Your task to perform on an android device: check android version Image 0: 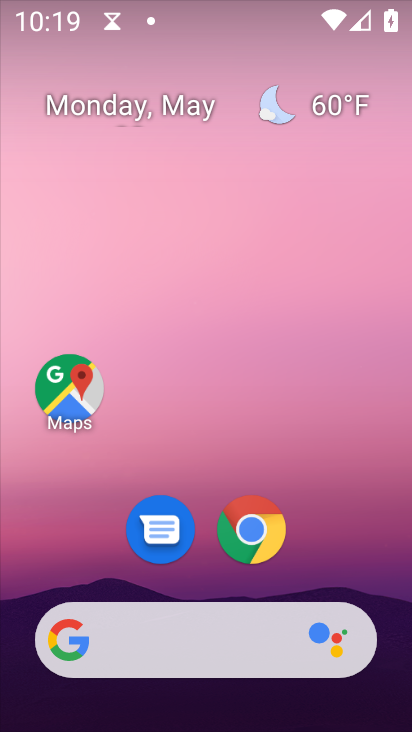
Step 0: drag from (332, 555) to (266, 216)
Your task to perform on an android device: check android version Image 1: 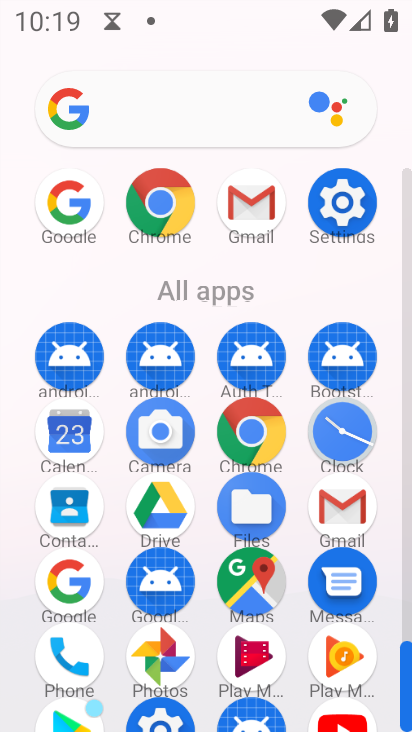
Step 1: click (340, 204)
Your task to perform on an android device: check android version Image 2: 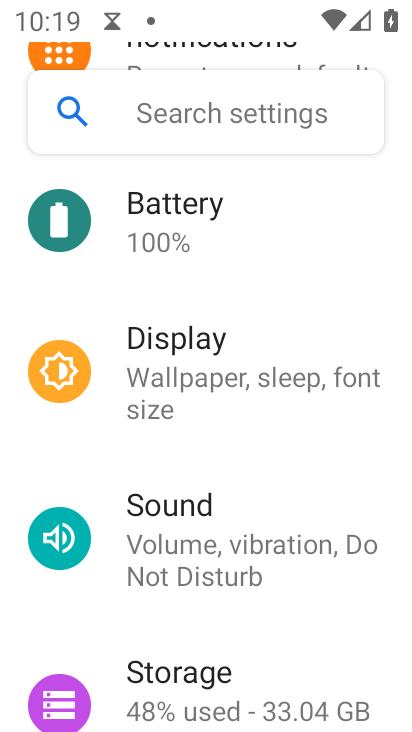
Step 2: drag from (237, 609) to (214, 90)
Your task to perform on an android device: check android version Image 3: 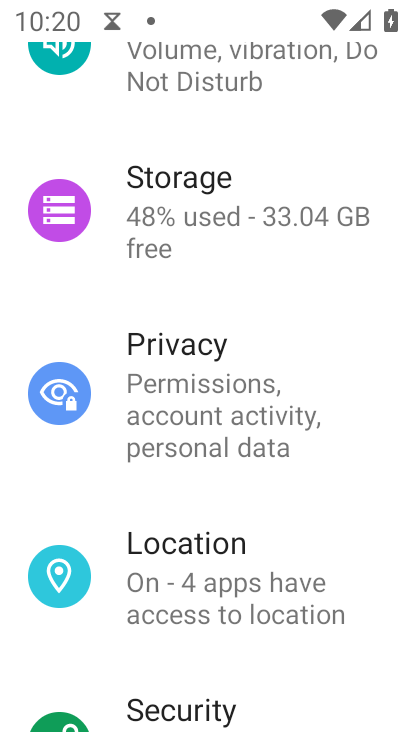
Step 3: drag from (286, 667) to (253, 139)
Your task to perform on an android device: check android version Image 4: 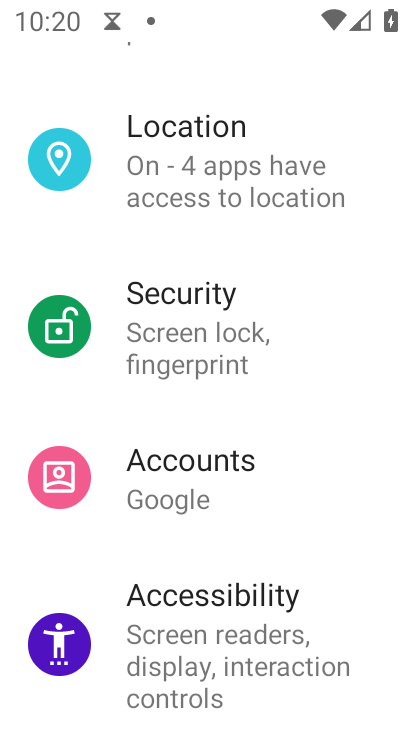
Step 4: drag from (240, 651) to (259, 83)
Your task to perform on an android device: check android version Image 5: 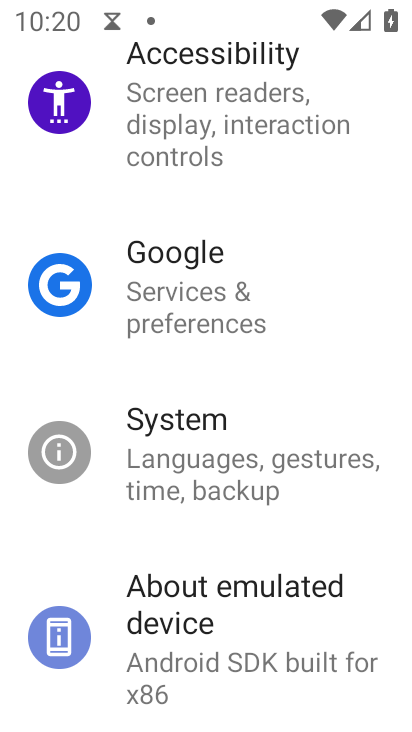
Step 5: click (207, 660)
Your task to perform on an android device: check android version Image 6: 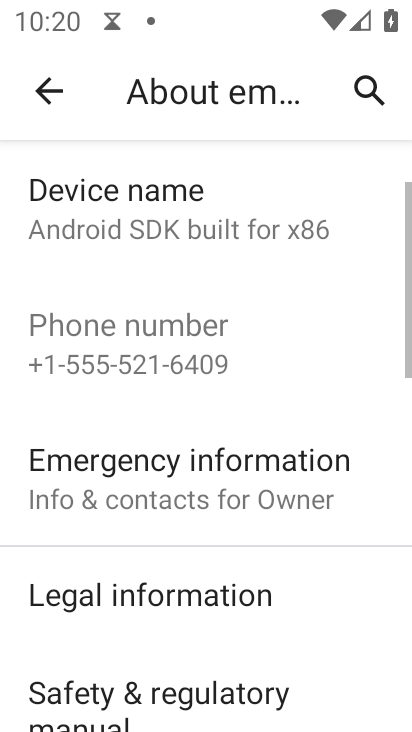
Step 6: drag from (187, 673) to (185, 300)
Your task to perform on an android device: check android version Image 7: 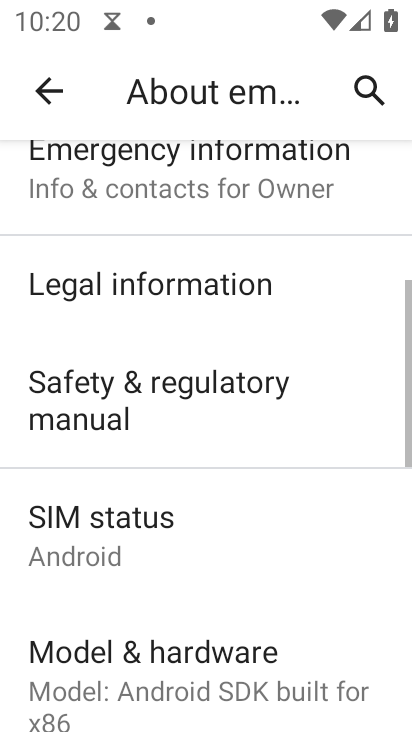
Step 7: drag from (156, 558) to (201, 227)
Your task to perform on an android device: check android version Image 8: 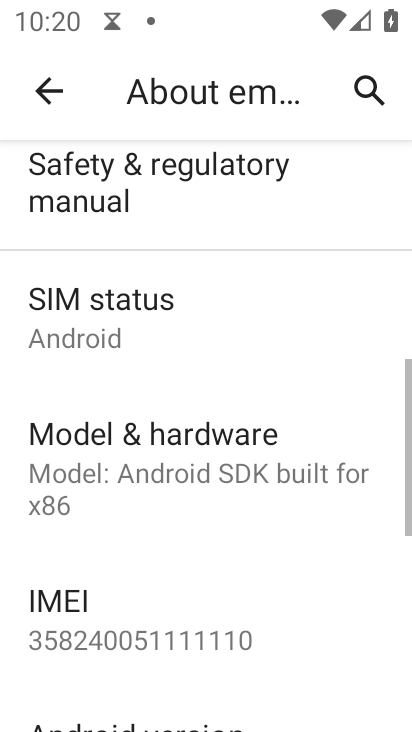
Step 8: drag from (149, 570) to (196, 175)
Your task to perform on an android device: check android version Image 9: 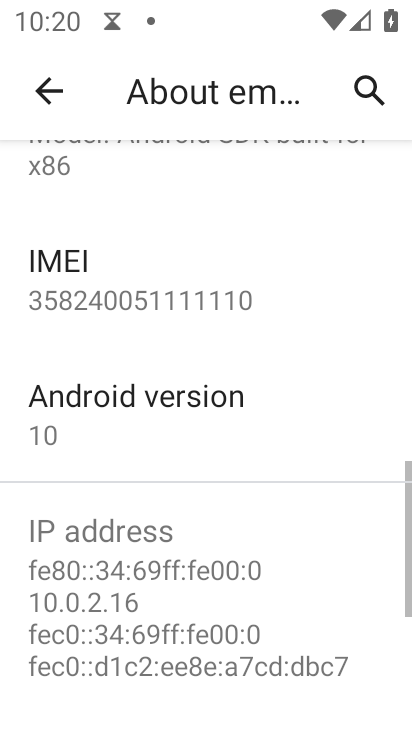
Step 9: click (142, 433)
Your task to perform on an android device: check android version Image 10: 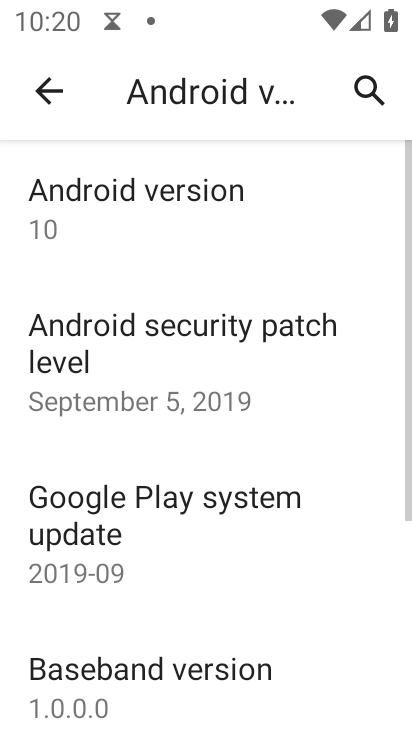
Step 10: task complete